Your task to perform on an android device: Go to accessibility settings Image 0: 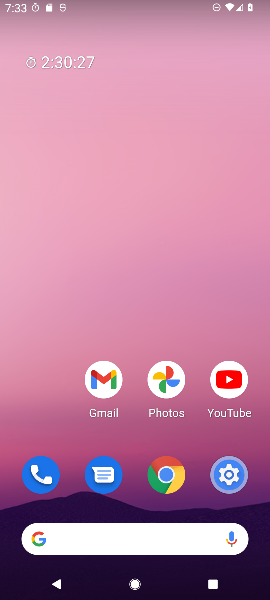
Step 0: press home button
Your task to perform on an android device: Go to accessibility settings Image 1: 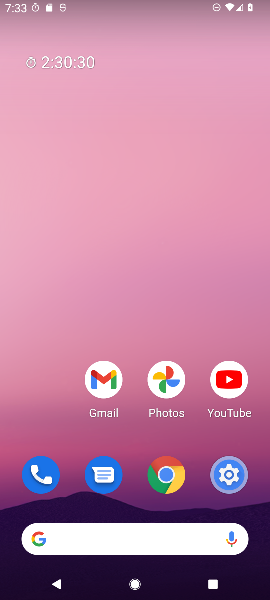
Step 1: drag from (56, 413) to (47, 155)
Your task to perform on an android device: Go to accessibility settings Image 2: 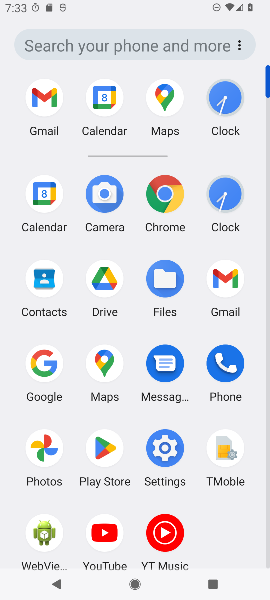
Step 2: click (168, 446)
Your task to perform on an android device: Go to accessibility settings Image 3: 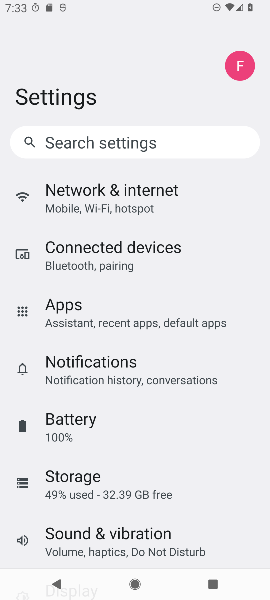
Step 3: drag from (212, 435) to (226, 356)
Your task to perform on an android device: Go to accessibility settings Image 4: 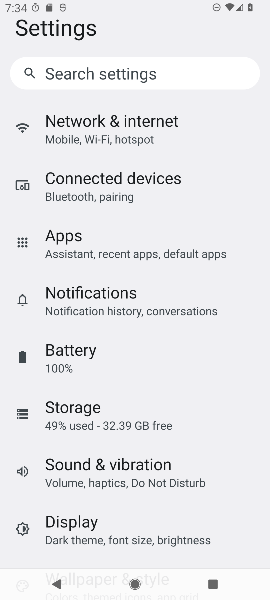
Step 4: drag from (223, 442) to (237, 337)
Your task to perform on an android device: Go to accessibility settings Image 5: 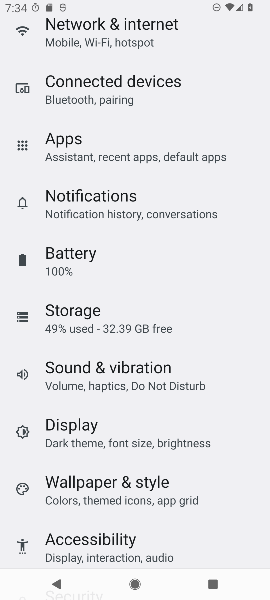
Step 5: drag from (233, 453) to (235, 340)
Your task to perform on an android device: Go to accessibility settings Image 6: 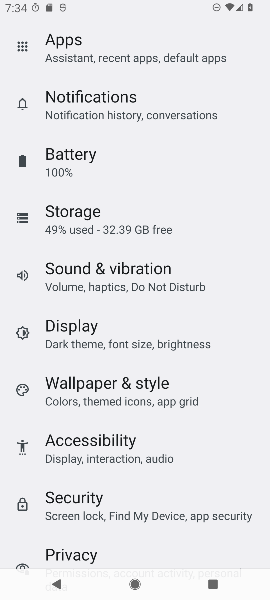
Step 6: drag from (236, 441) to (238, 360)
Your task to perform on an android device: Go to accessibility settings Image 7: 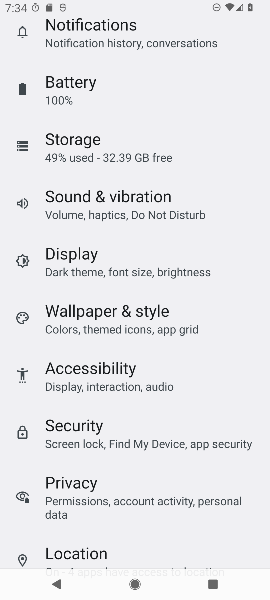
Step 7: drag from (238, 456) to (240, 345)
Your task to perform on an android device: Go to accessibility settings Image 8: 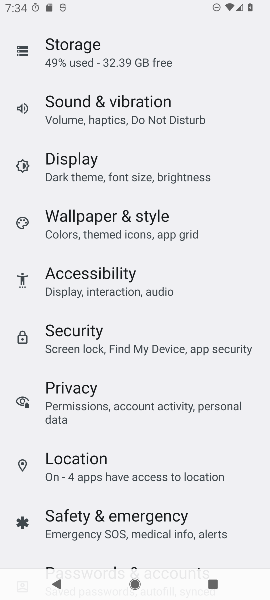
Step 8: drag from (240, 471) to (243, 343)
Your task to perform on an android device: Go to accessibility settings Image 9: 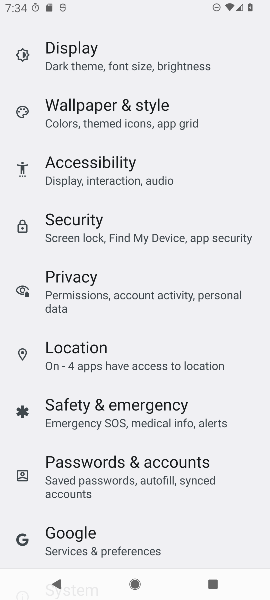
Step 9: drag from (231, 452) to (237, 364)
Your task to perform on an android device: Go to accessibility settings Image 10: 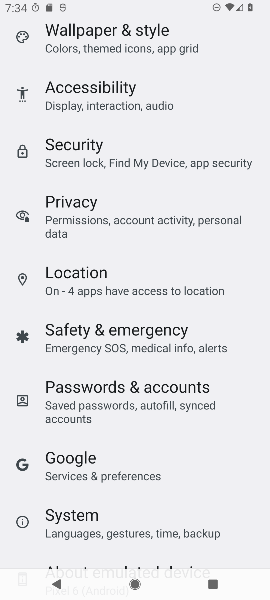
Step 10: click (151, 98)
Your task to perform on an android device: Go to accessibility settings Image 11: 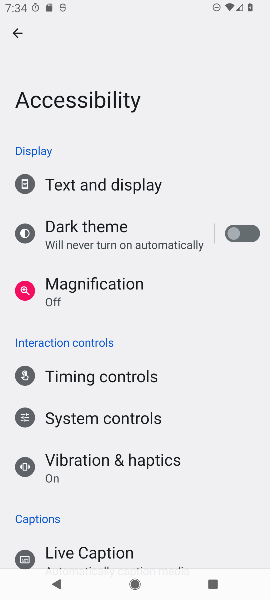
Step 11: task complete